Your task to perform on an android device: change text size in settings app Image 0: 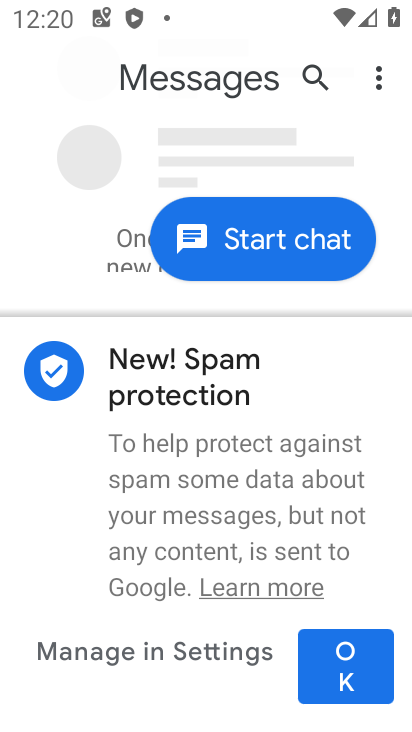
Step 0: press back button
Your task to perform on an android device: change text size in settings app Image 1: 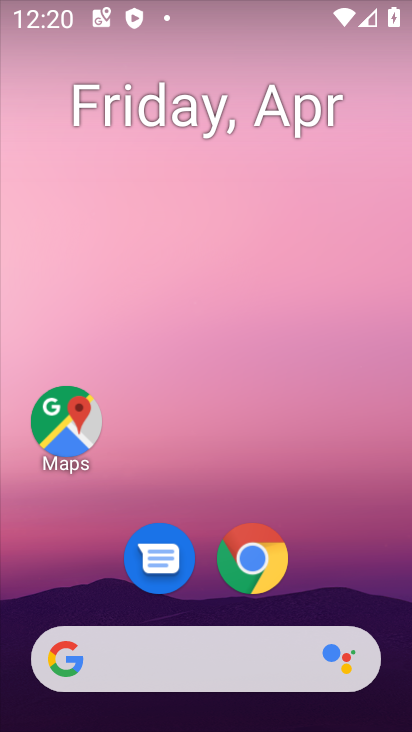
Step 1: drag from (355, 601) to (215, 85)
Your task to perform on an android device: change text size in settings app Image 2: 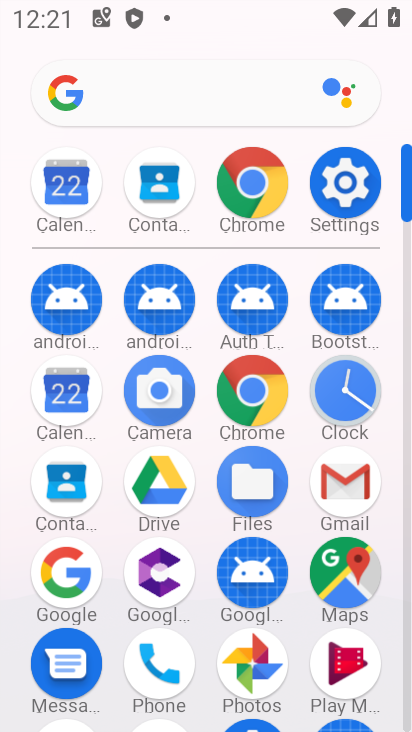
Step 2: click (324, 186)
Your task to perform on an android device: change text size in settings app Image 3: 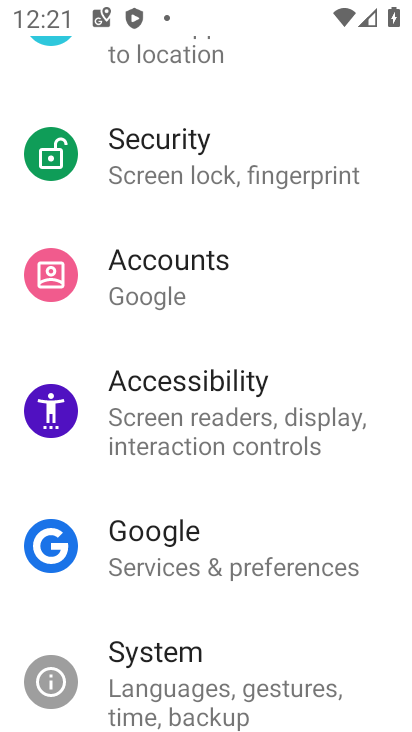
Step 3: drag from (221, 175) to (232, 523)
Your task to perform on an android device: change text size in settings app Image 4: 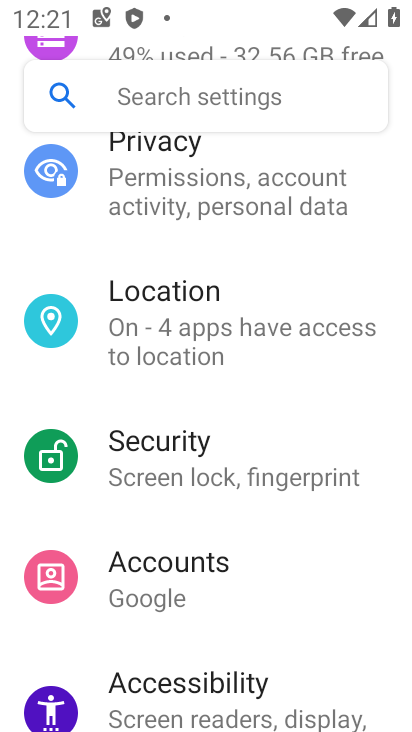
Step 4: drag from (248, 217) to (267, 554)
Your task to perform on an android device: change text size in settings app Image 5: 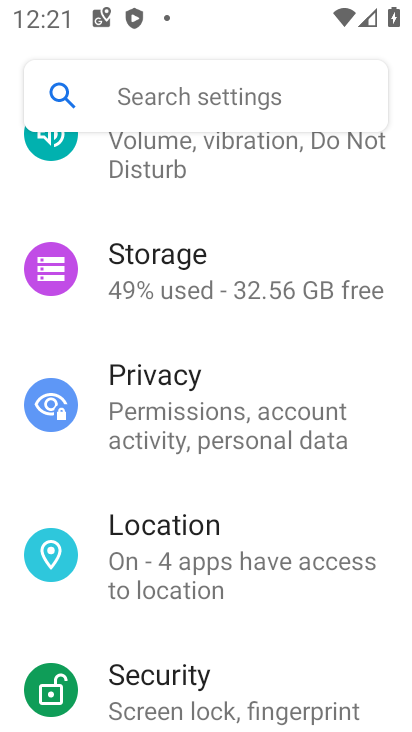
Step 5: drag from (230, 225) to (266, 524)
Your task to perform on an android device: change text size in settings app Image 6: 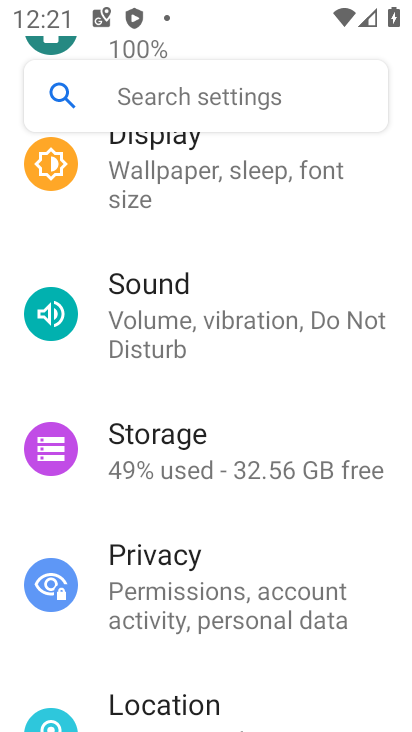
Step 6: drag from (173, 246) to (210, 531)
Your task to perform on an android device: change text size in settings app Image 7: 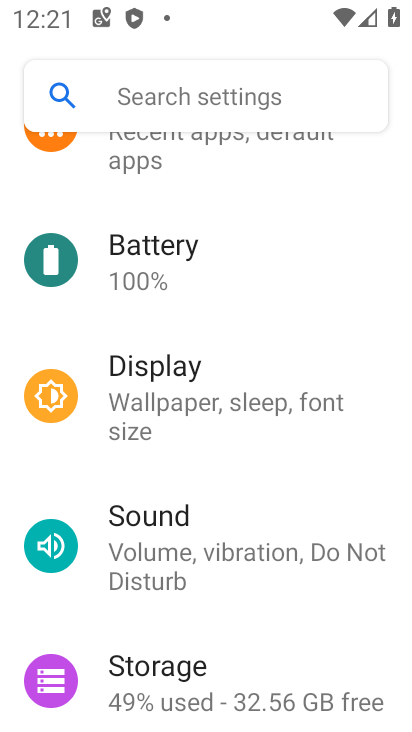
Step 7: click (152, 401)
Your task to perform on an android device: change text size in settings app Image 8: 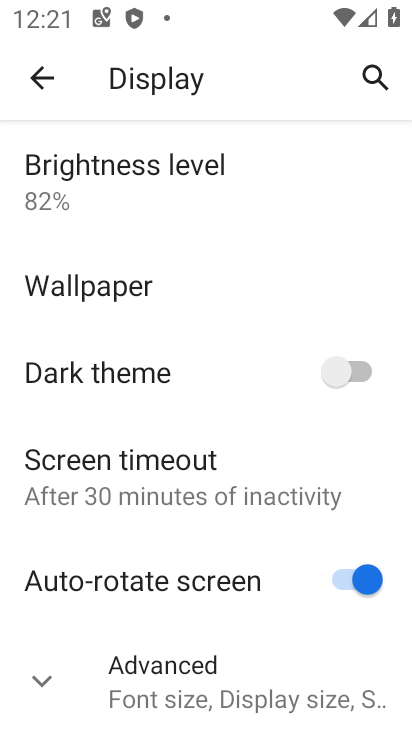
Step 8: click (75, 676)
Your task to perform on an android device: change text size in settings app Image 9: 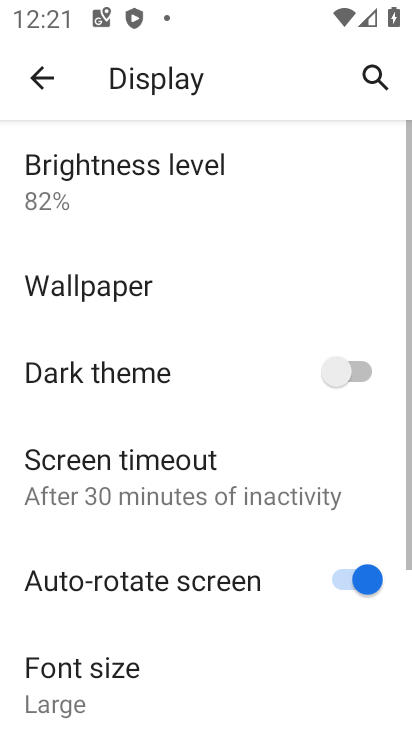
Step 9: drag from (75, 676) to (156, 422)
Your task to perform on an android device: change text size in settings app Image 10: 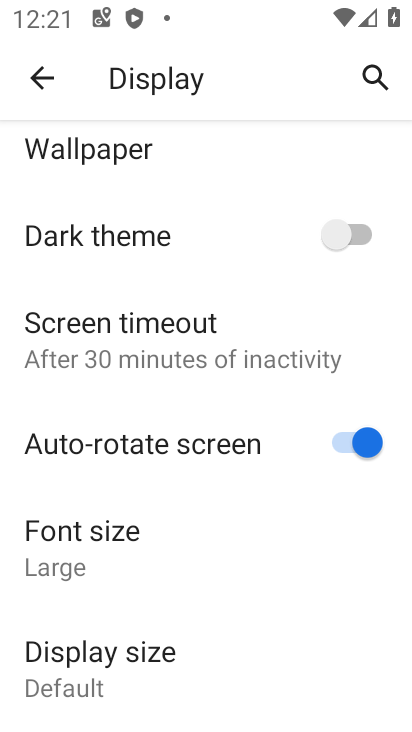
Step 10: click (104, 537)
Your task to perform on an android device: change text size in settings app Image 11: 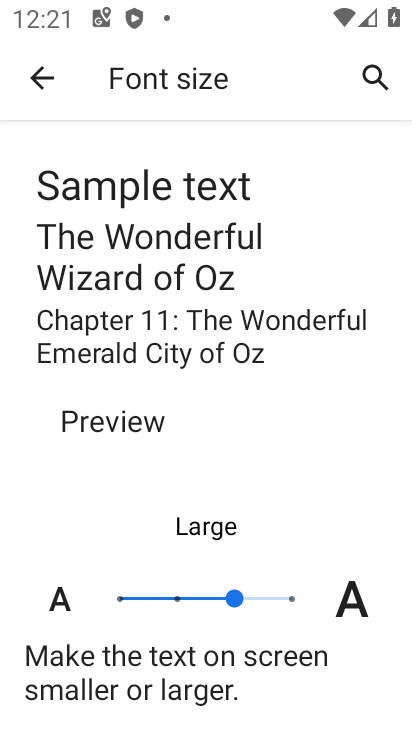
Step 11: click (178, 599)
Your task to perform on an android device: change text size in settings app Image 12: 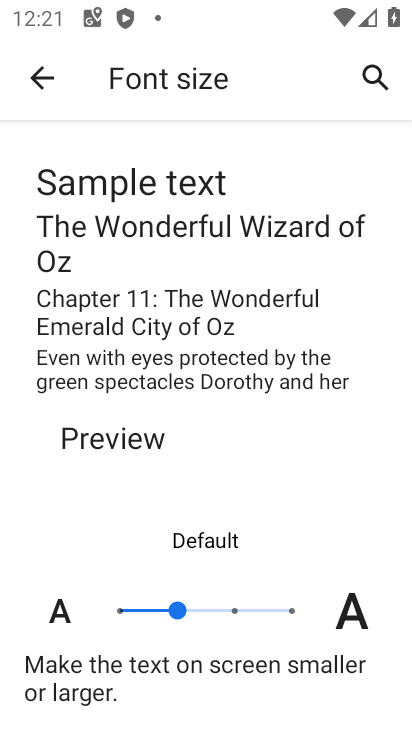
Step 12: task complete